Your task to perform on an android device: Open maps Image 0: 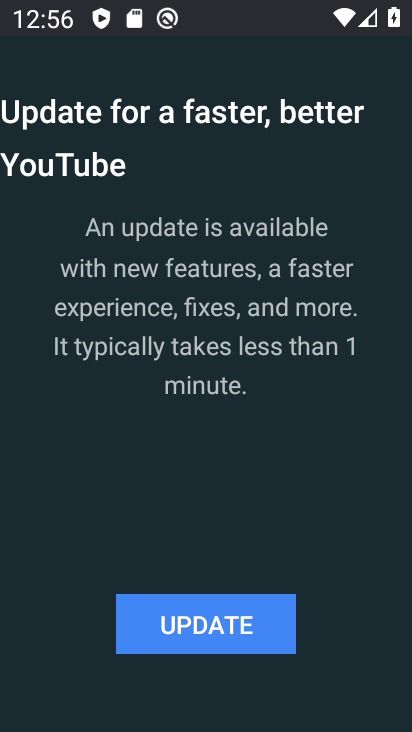
Step 0: press home button
Your task to perform on an android device: Open maps Image 1: 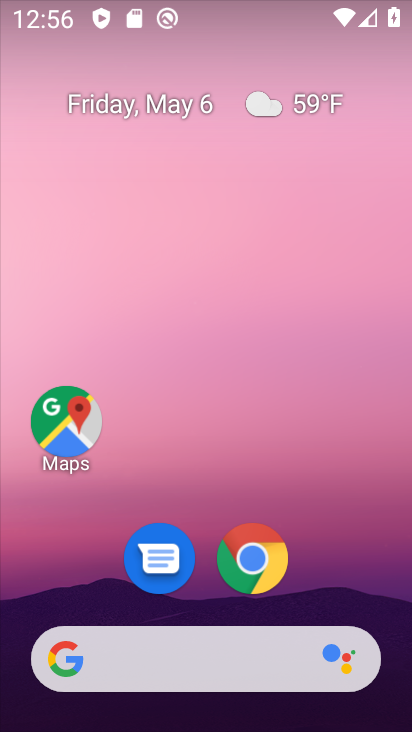
Step 1: drag from (248, 707) to (274, 131)
Your task to perform on an android device: Open maps Image 2: 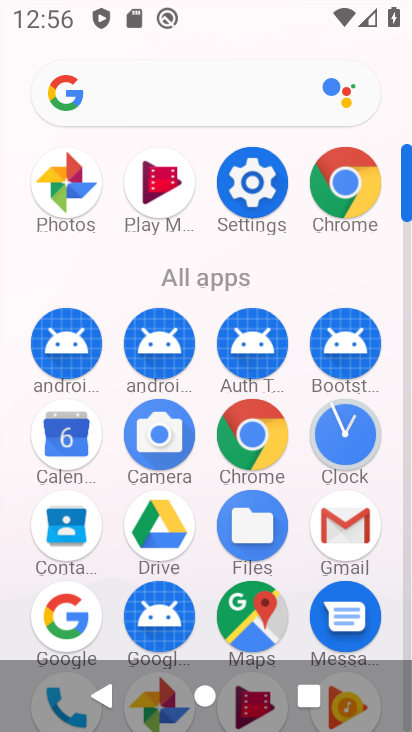
Step 2: click (250, 612)
Your task to perform on an android device: Open maps Image 3: 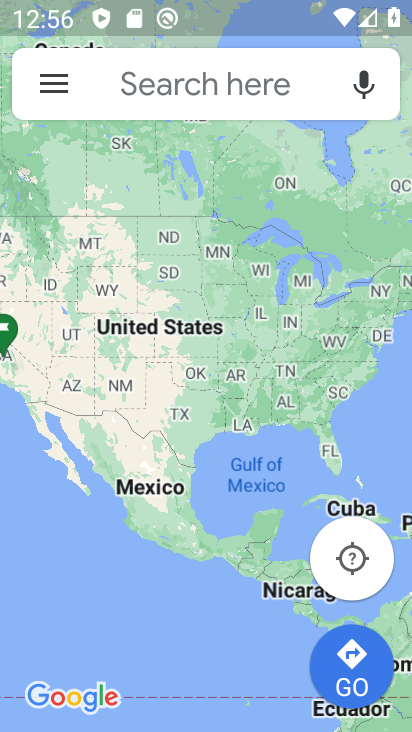
Step 3: task complete